Your task to perform on an android device: Open Youtube and go to the subscriptions tab Image 0: 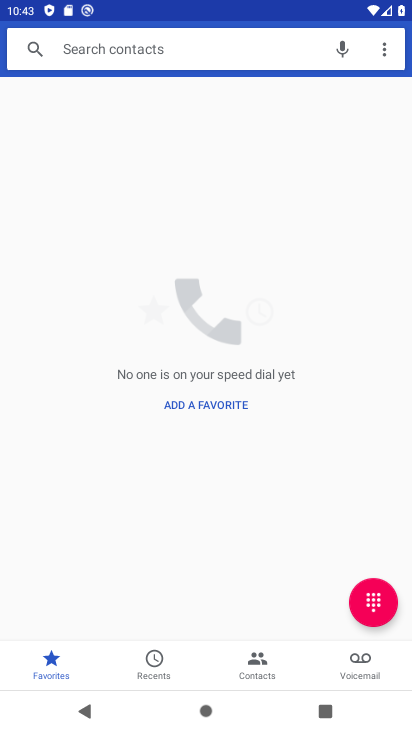
Step 0: drag from (182, 475) to (251, 211)
Your task to perform on an android device: Open Youtube and go to the subscriptions tab Image 1: 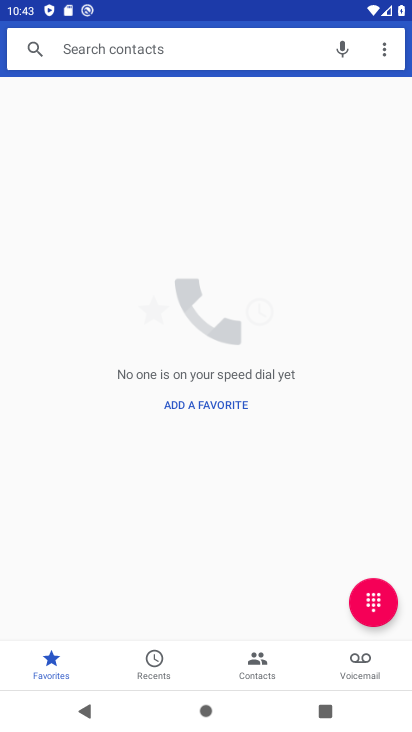
Step 1: press home button
Your task to perform on an android device: Open Youtube and go to the subscriptions tab Image 2: 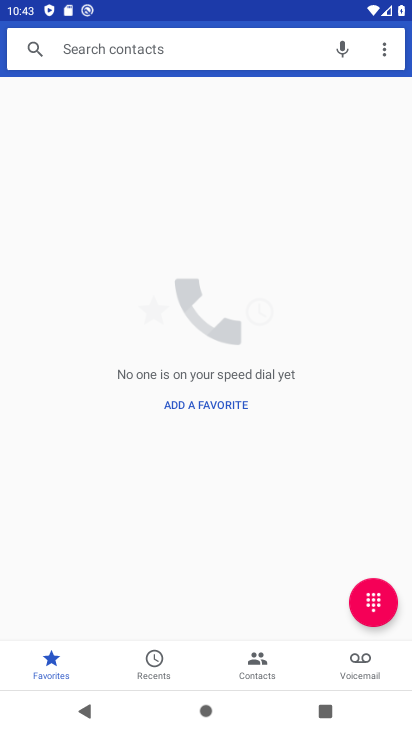
Step 2: press home button
Your task to perform on an android device: Open Youtube and go to the subscriptions tab Image 3: 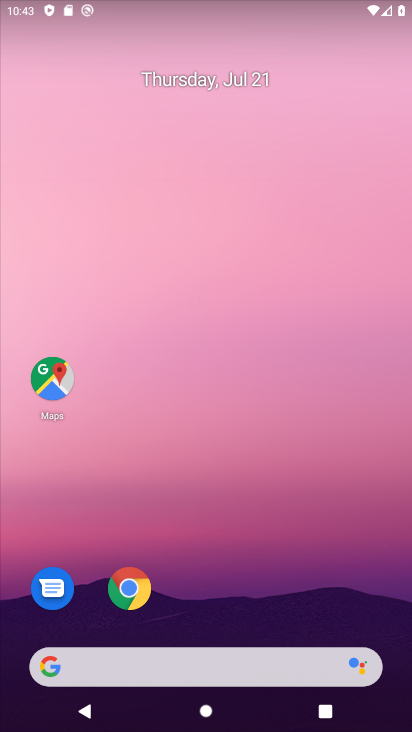
Step 3: drag from (196, 560) to (240, 92)
Your task to perform on an android device: Open Youtube and go to the subscriptions tab Image 4: 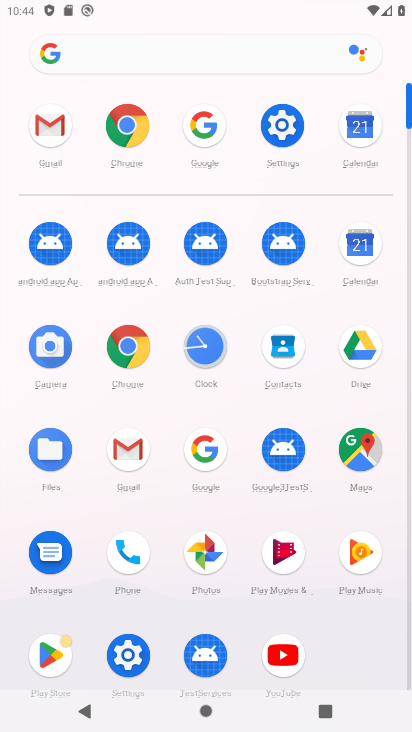
Step 4: click (279, 660)
Your task to perform on an android device: Open Youtube and go to the subscriptions tab Image 5: 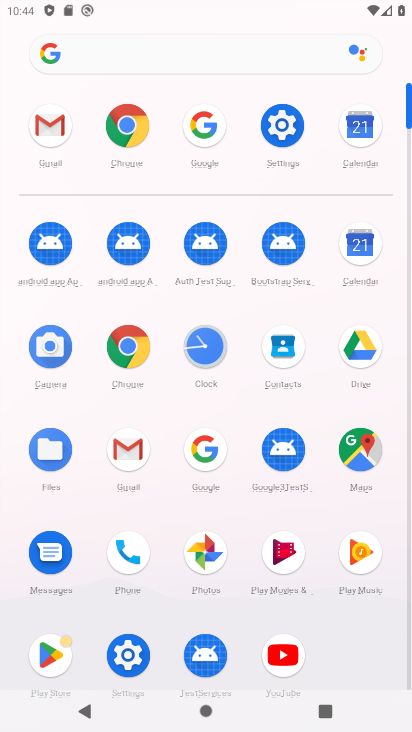
Step 5: click (279, 660)
Your task to perform on an android device: Open Youtube and go to the subscriptions tab Image 6: 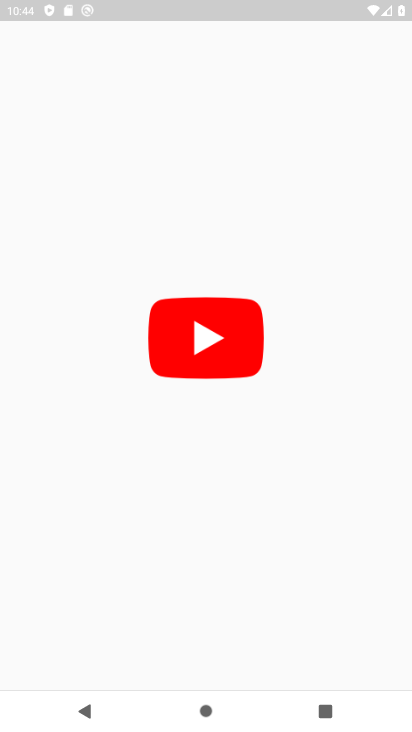
Step 6: task complete